Your task to perform on an android device: refresh tabs in the chrome app Image 0: 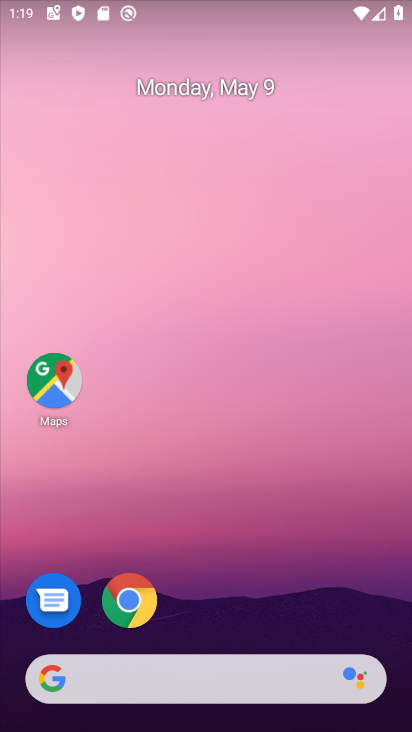
Step 0: click (134, 602)
Your task to perform on an android device: refresh tabs in the chrome app Image 1: 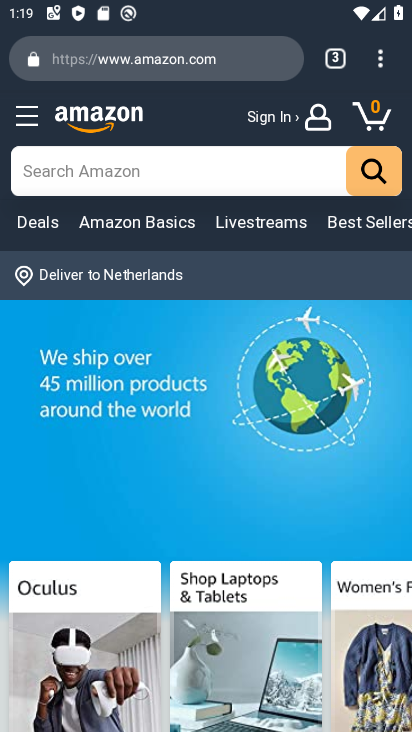
Step 1: click (375, 55)
Your task to perform on an android device: refresh tabs in the chrome app Image 2: 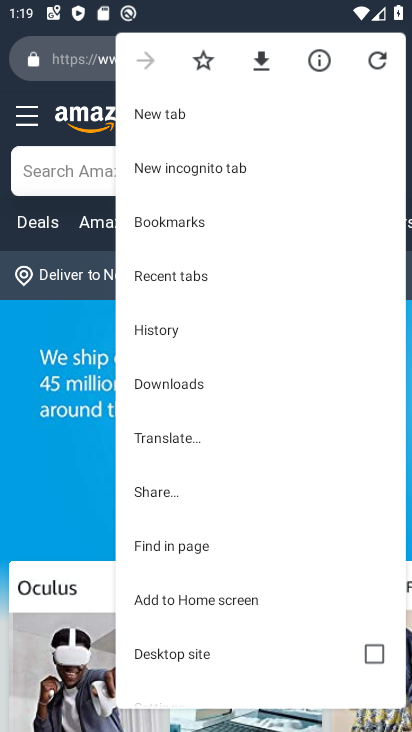
Step 2: click (356, 71)
Your task to perform on an android device: refresh tabs in the chrome app Image 3: 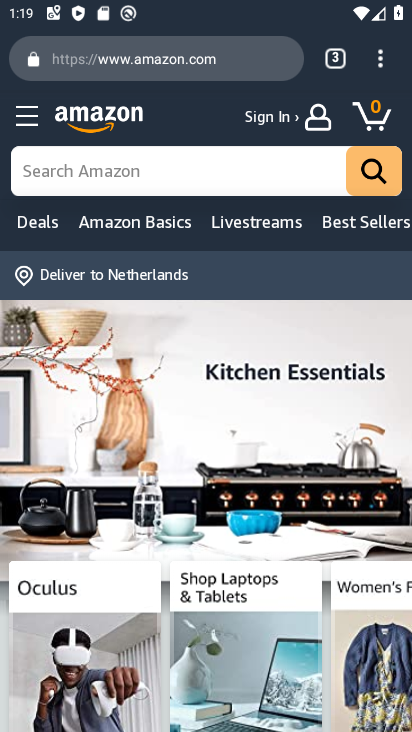
Step 3: task complete